Your task to perform on an android device: Go to network settings Image 0: 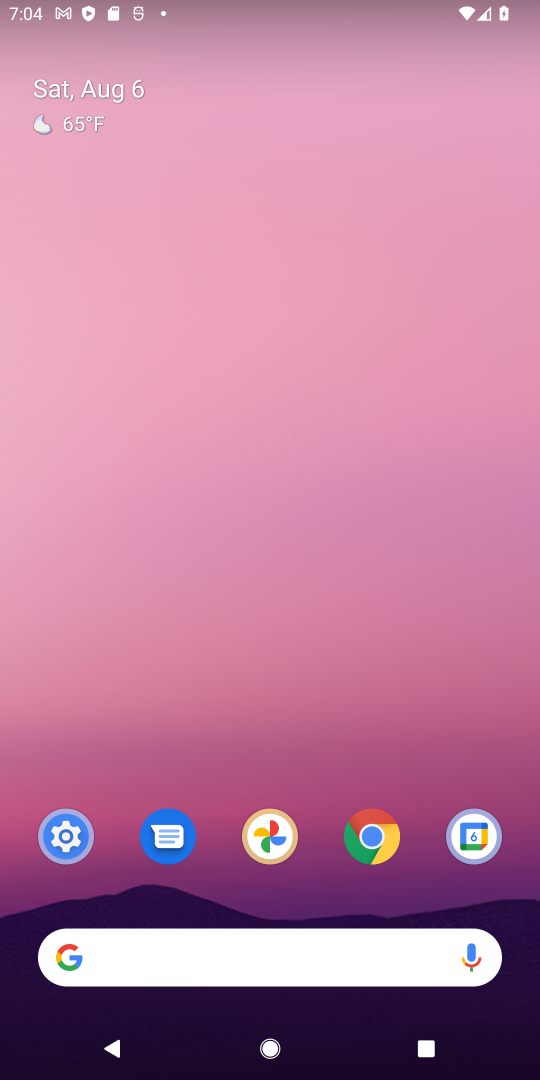
Step 0: drag from (327, 894) to (151, 162)
Your task to perform on an android device: Go to network settings Image 1: 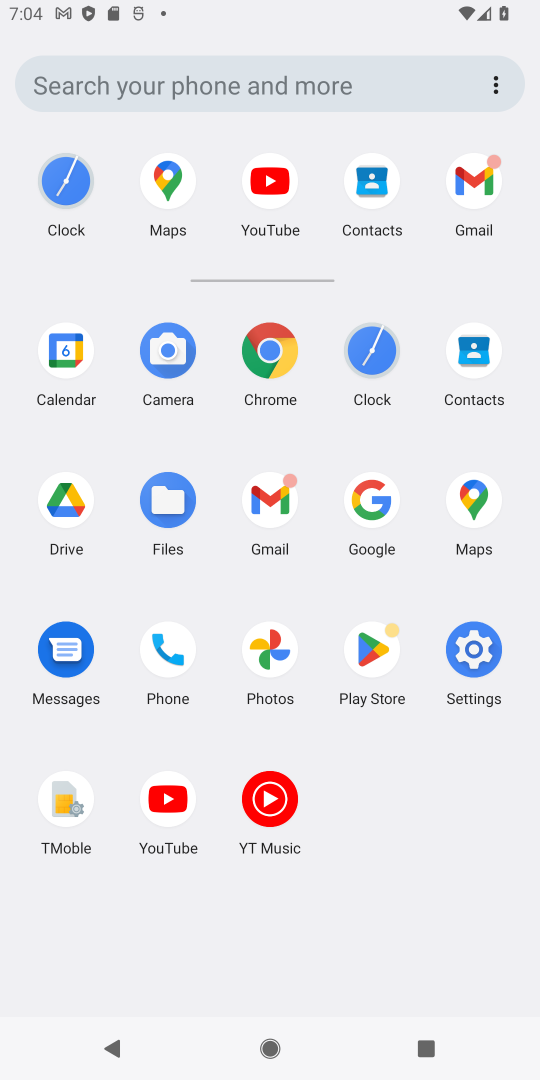
Step 1: press home button
Your task to perform on an android device: Go to network settings Image 2: 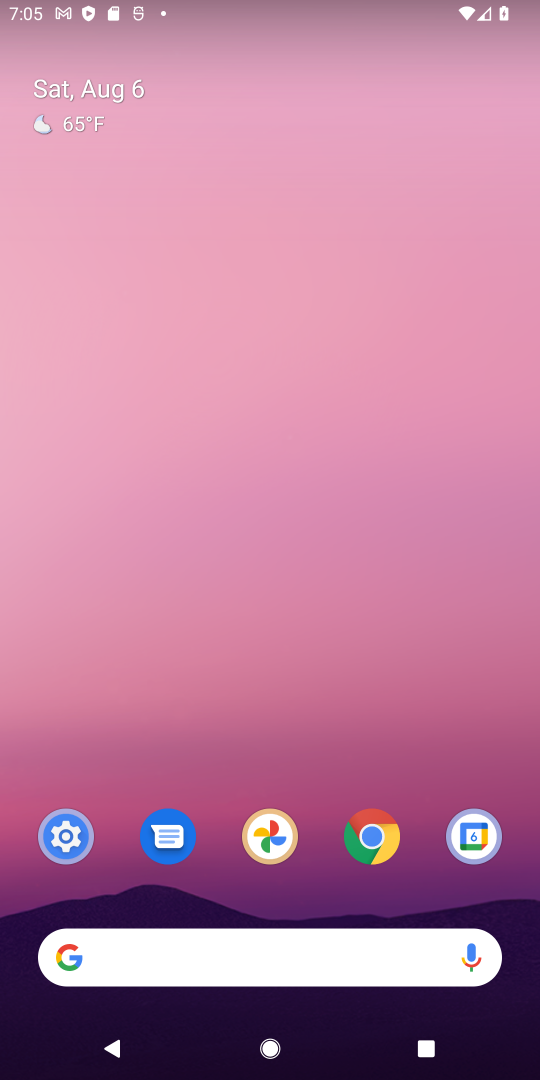
Step 2: drag from (408, 890) to (264, 12)
Your task to perform on an android device: Go to network settings Image 3: 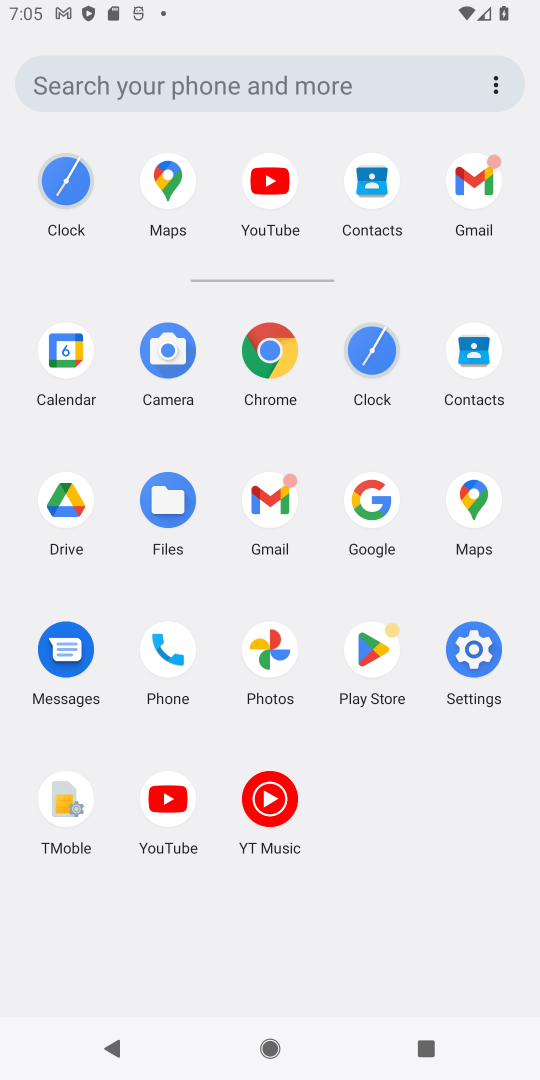
Step 3: click (457, 665)
Your task to perform on an android device: Go to network settings Image 4: 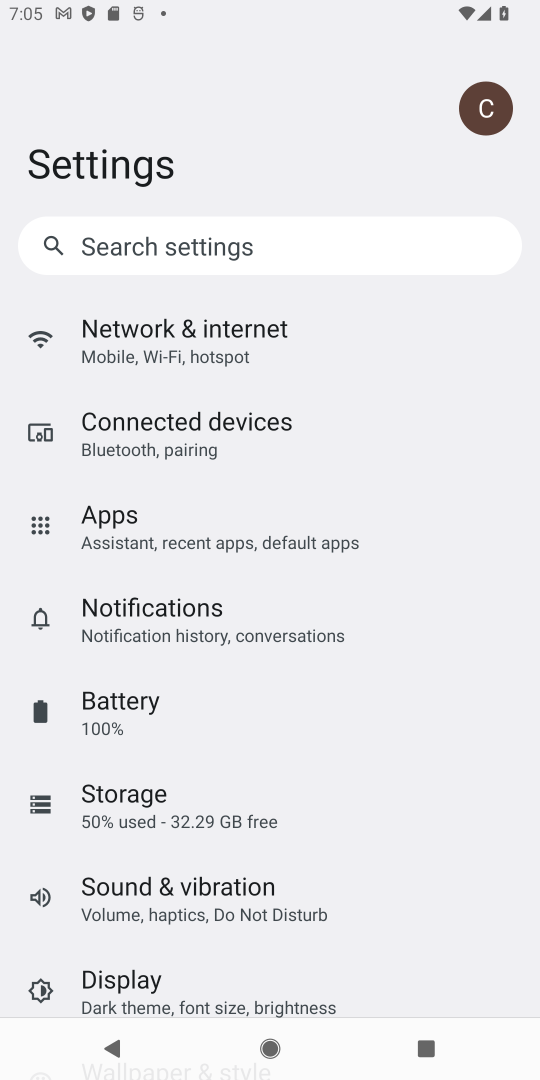
Step 4: click (190, 348)
Your task to perform on an android device: Go to network settings Image 5: 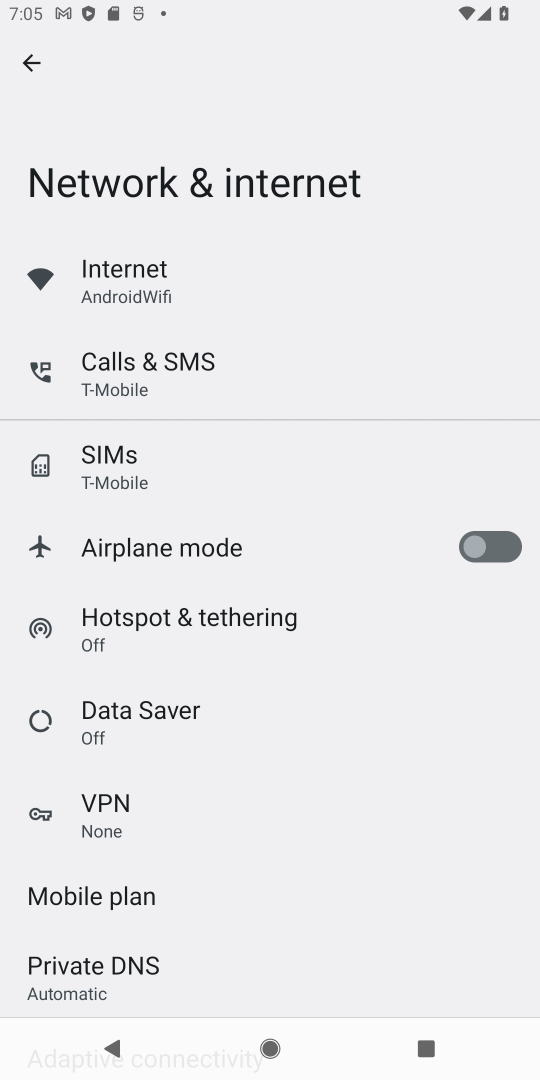
Step 5: task complete